Your task to perform on an android device: turn off notifications in google photos Image 0: 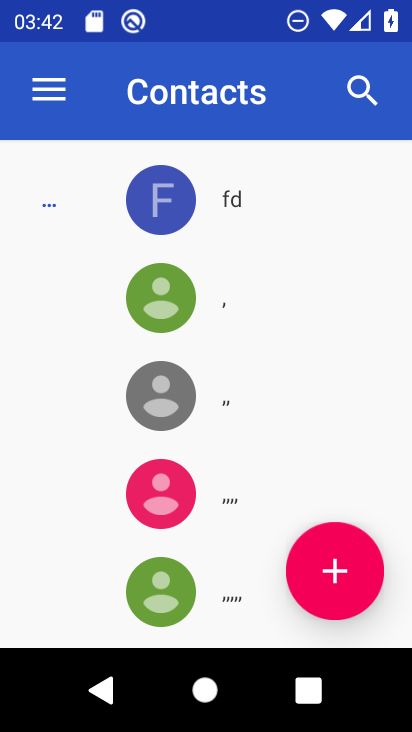
Step 0: press home button
Your task to perform on an android device: turn off notifications in google photos Image 1: 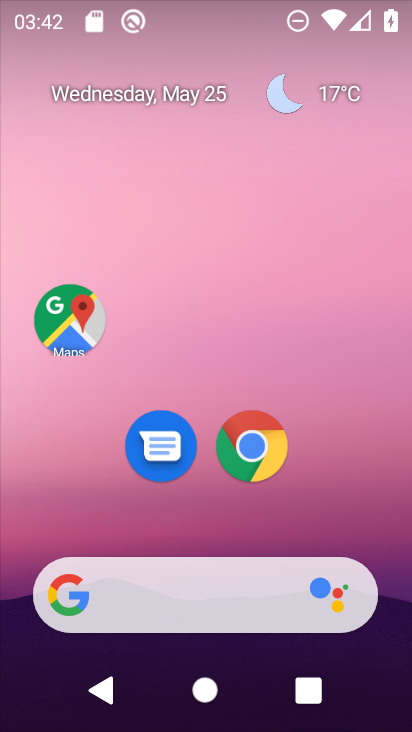
Step 1: drag from (217, 444) to (233, 116)
Your task to perform on an android device: turn off notifications in google photos Image 2: 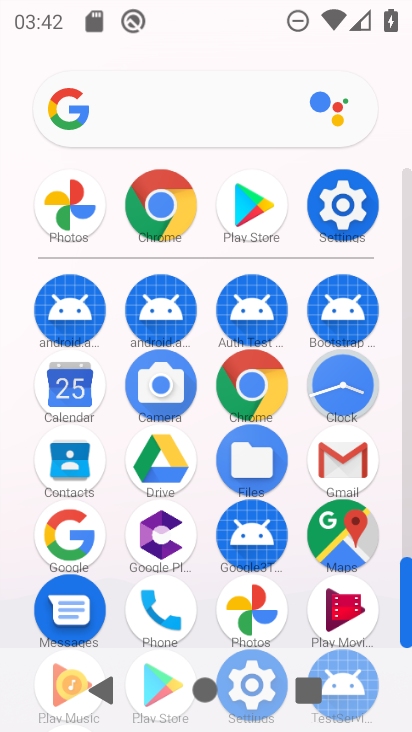
Step 2: click (236, 592)
Your task to perform on an android device: turn off notifications in google photos Image 3: 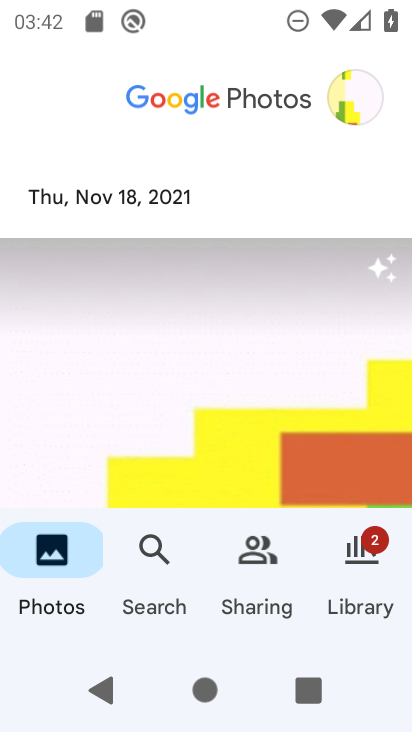
Step 3: click (370, 95)
Your task to perform on an android device: turn off notifications in google photos Image 4: 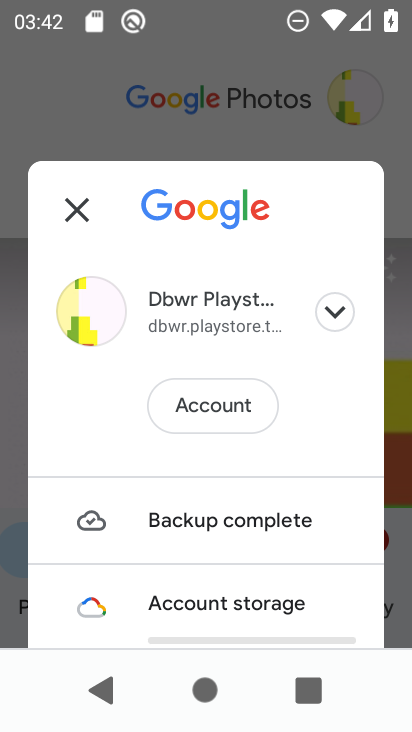
Step 4: drag from (200, 557) to (162, 198)
Your task to perform on an android device: turn off notifications in google photos Image 5: 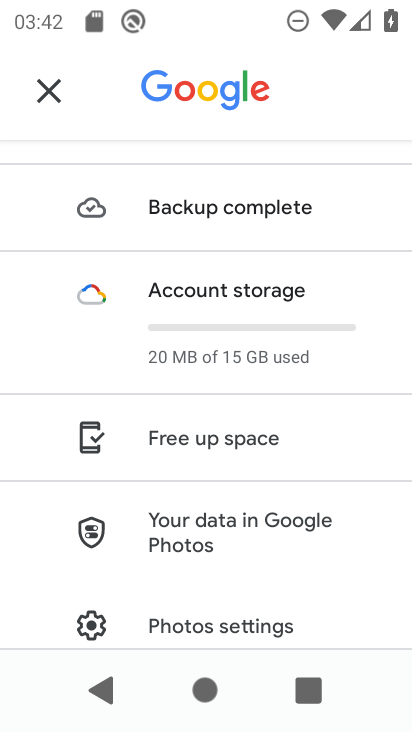
Step 5: click (194, 612)
Your task to perform on an android device: turn off notifications in google photos Image 6: 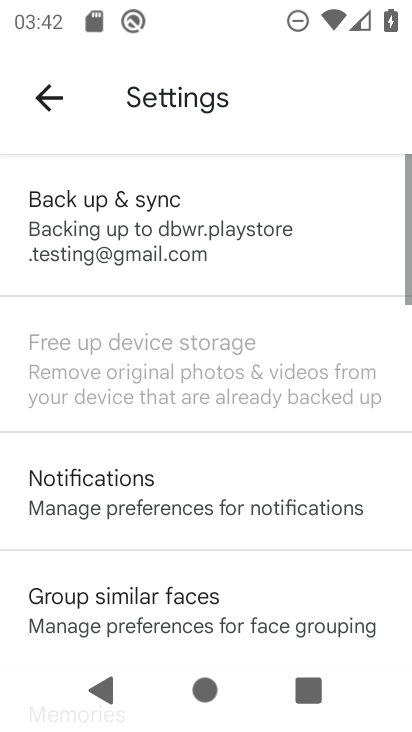
Step 6: click (172, 510)
Your task to perform on an android device: turn off notifications in google photos Image 7: 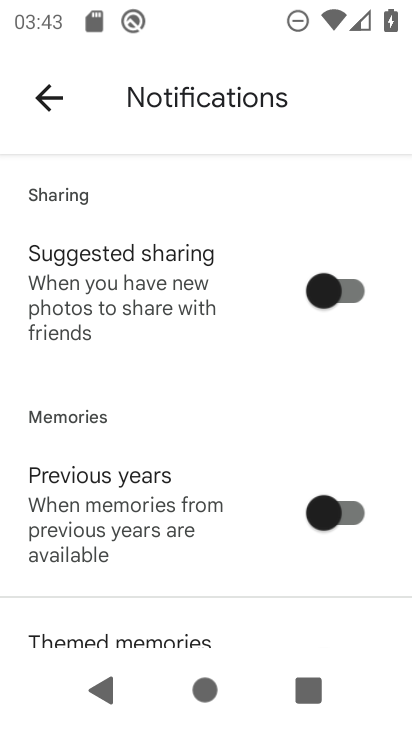
Step 7: task complete